Your task to perform on an android device: Show the shopping cart on newegg. Add "lg ultragear" to the cart on newegg Image 0: 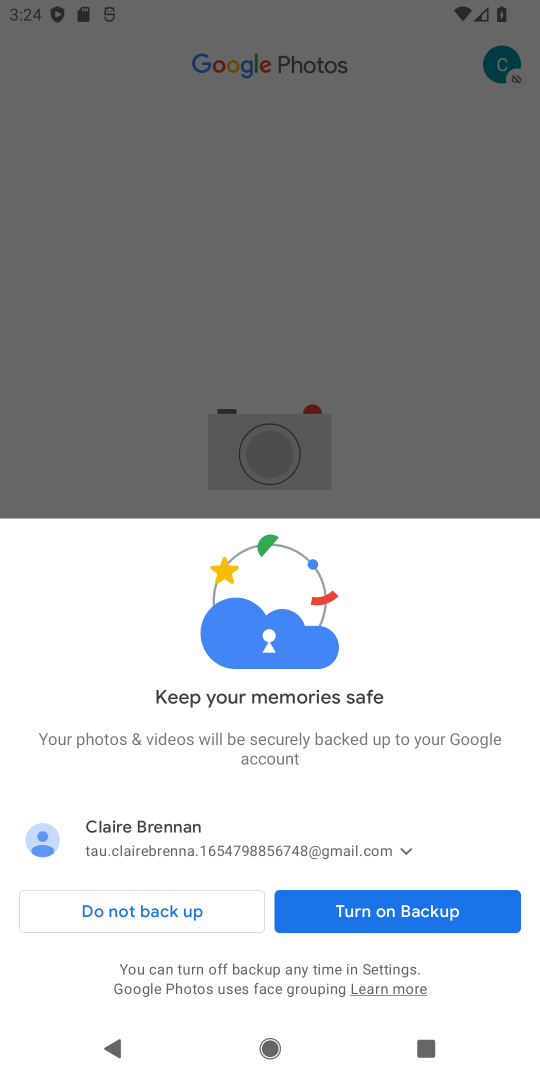
Step 0: press home button
Your task to perform on an android device: Show the shopping cart on newegg. Add "lg ultragear" to the cart on newegg Image 1: 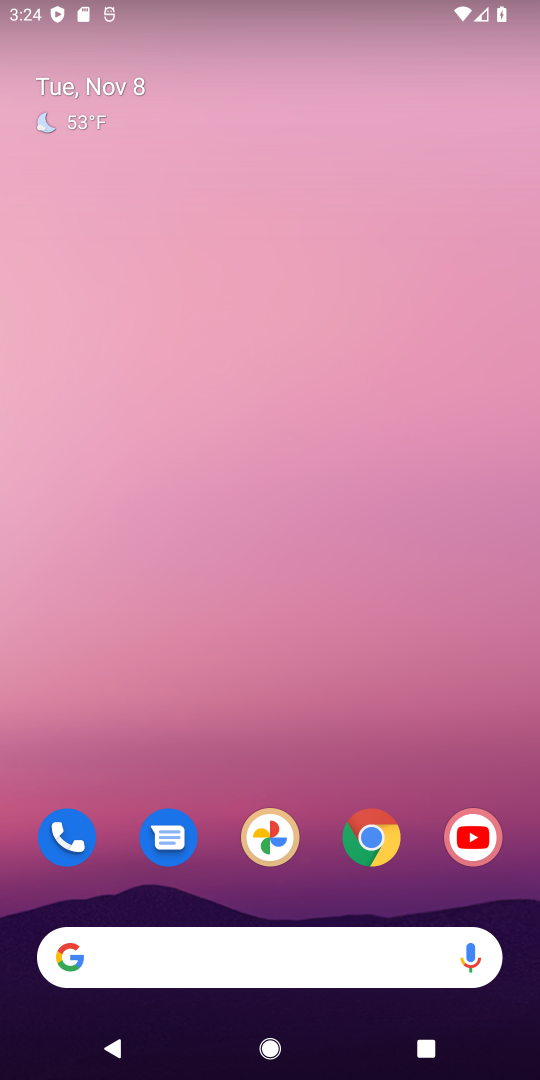
Step 1: click (373, 813)
Your task to perform on an android device: Show the shopping cart on newegg. Add "lg ultragear" to the cart on newegg Image 2: 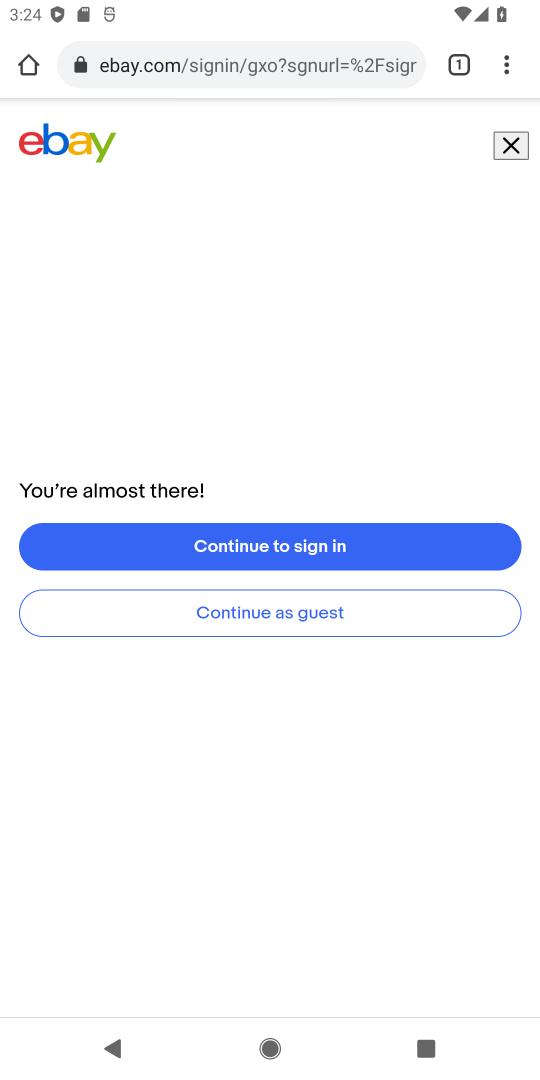
Step 2: click (257, 57)
Your task to perform on an android device: Show the shopping cart on newegg. Add "lg ultragear" to the cart on newegg Image 3: 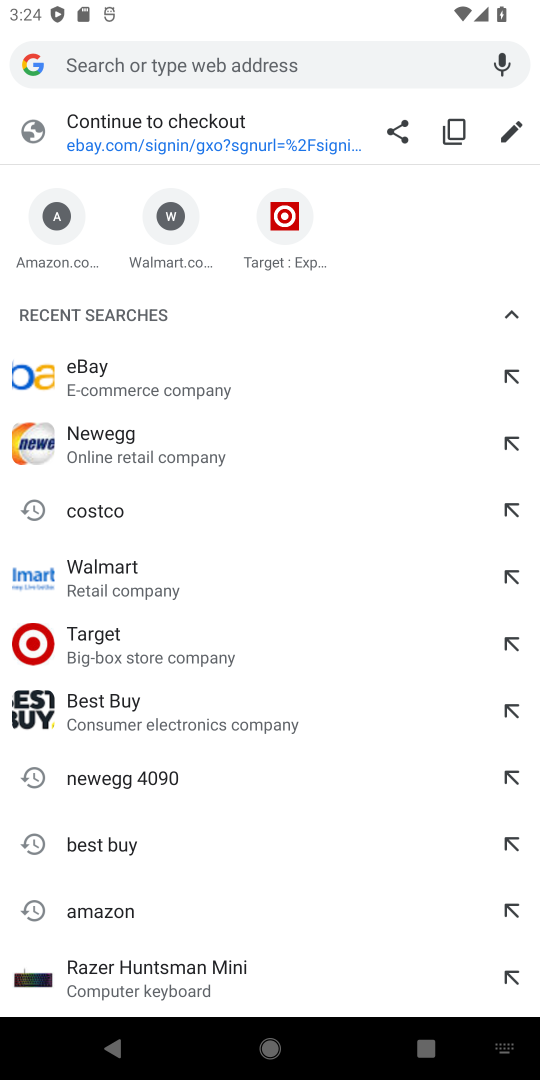
Step 3: click (108, 442)
Your task to perform on an android device: Show the shopping cart on newegg. Add "lg ultragear" to the cart on newegg Image 4: 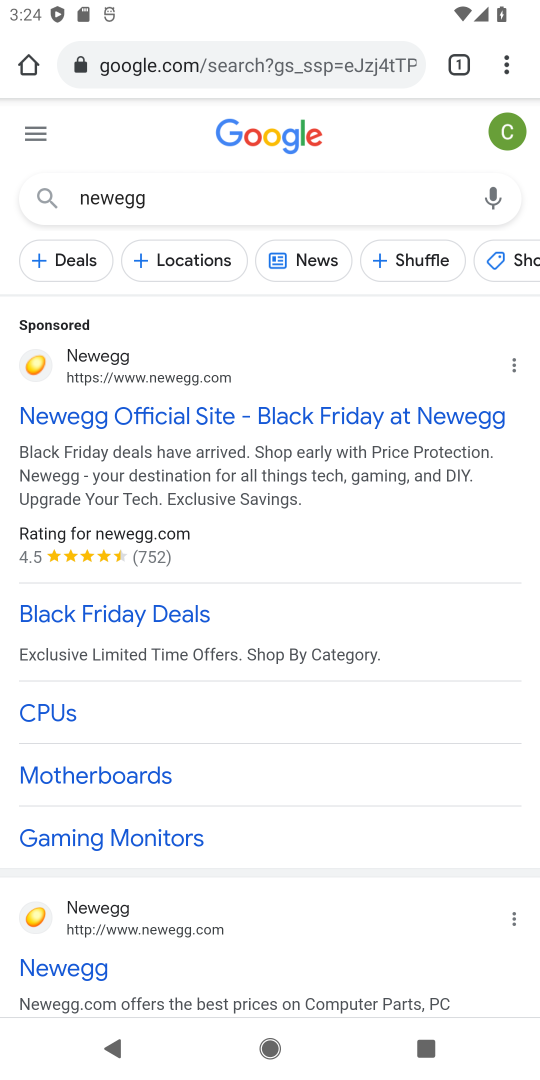
Step 4: click (51, 971)
Your task to perform on an android device: Show the shopping cart on newegg. Add "lg ultragear" to the cart on newegg Image 5: 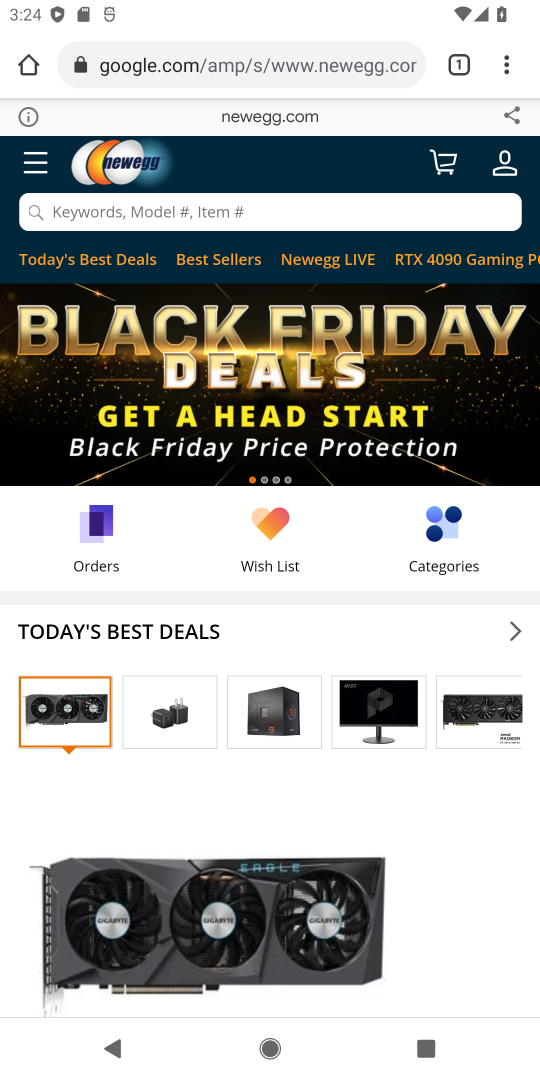
Step 5: click (193, 202)
Your task to perform on an android device: Show the shopping cart on newegg. Add "lg ultragear" to the cart on newegg Image 6: 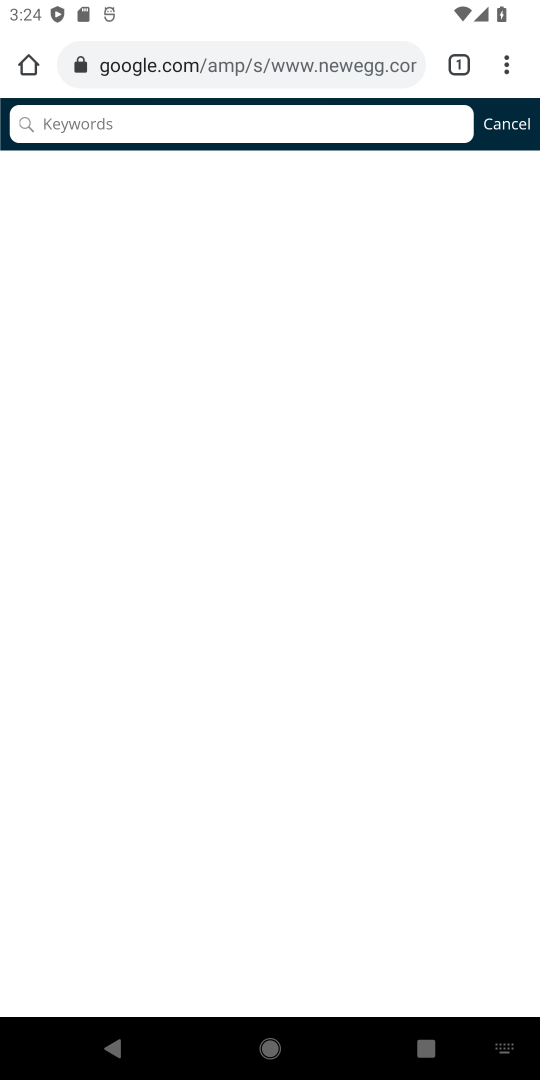
Step 6: type "lg ultragear"
Your task to perform on an android device: Show the shopping cart on newegg. Add "lg ultragear" to the cart on newegg Image 7: 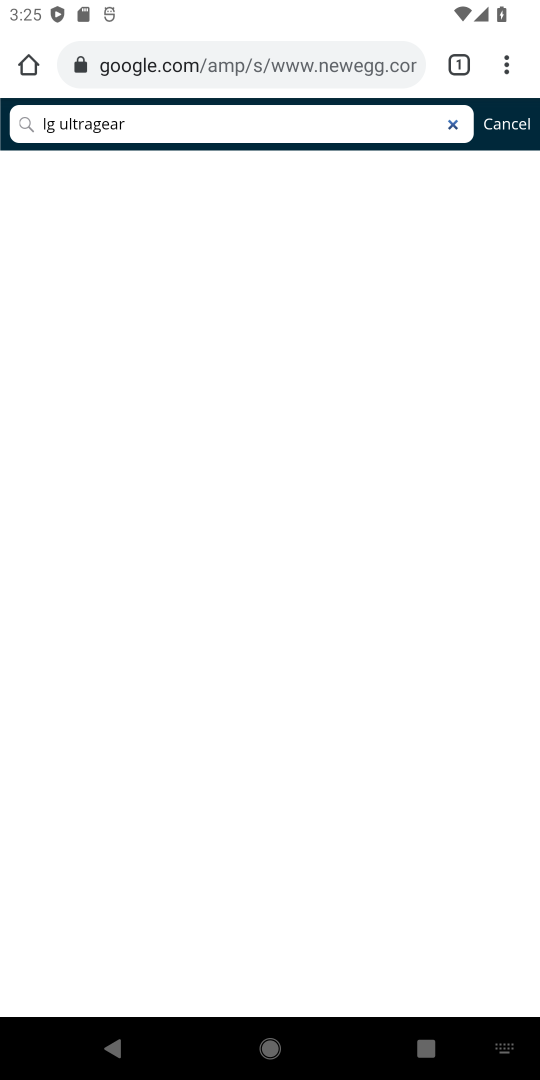
Step 7: type ""
Your task to perform on an android device: Show the shopping cart on newegg. Add "lg ultragear" to the cart on newegg Image 8: 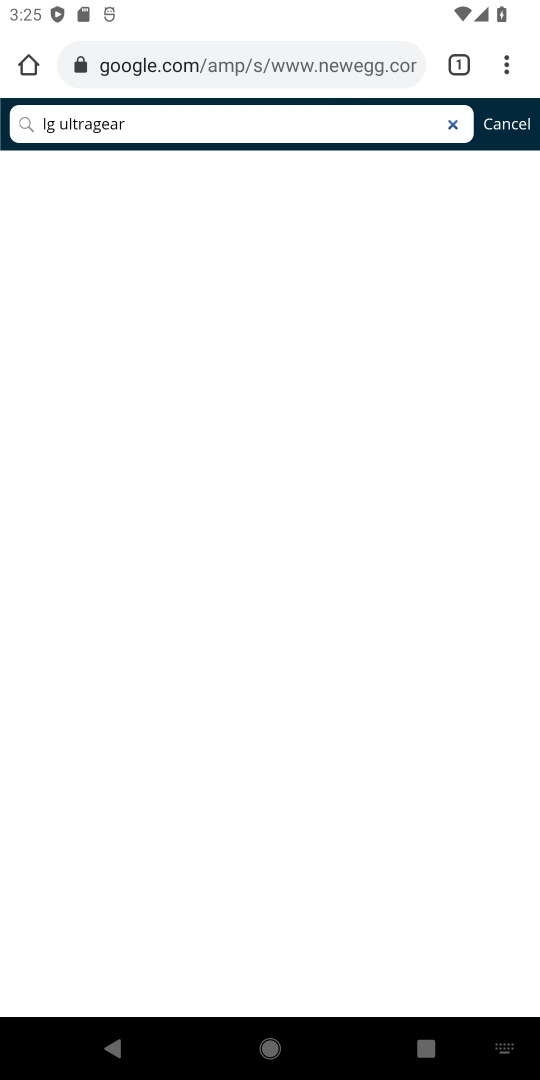
Step 8: type ""
Your task to perform on an android device: Show the shopping cart on newegg. Add "lg ultragear" to the cart on newegg Image 9: 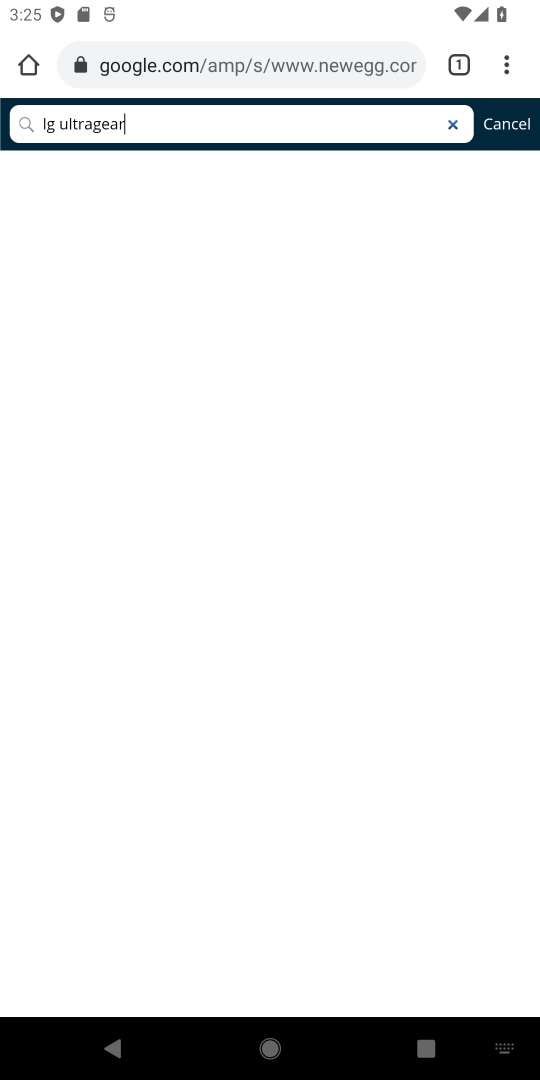
Step 9: type ""
Your task to perform on an android device: Show the shopping cart on newegg. Add "lg ultragear" to the cart on newegg Image 10: 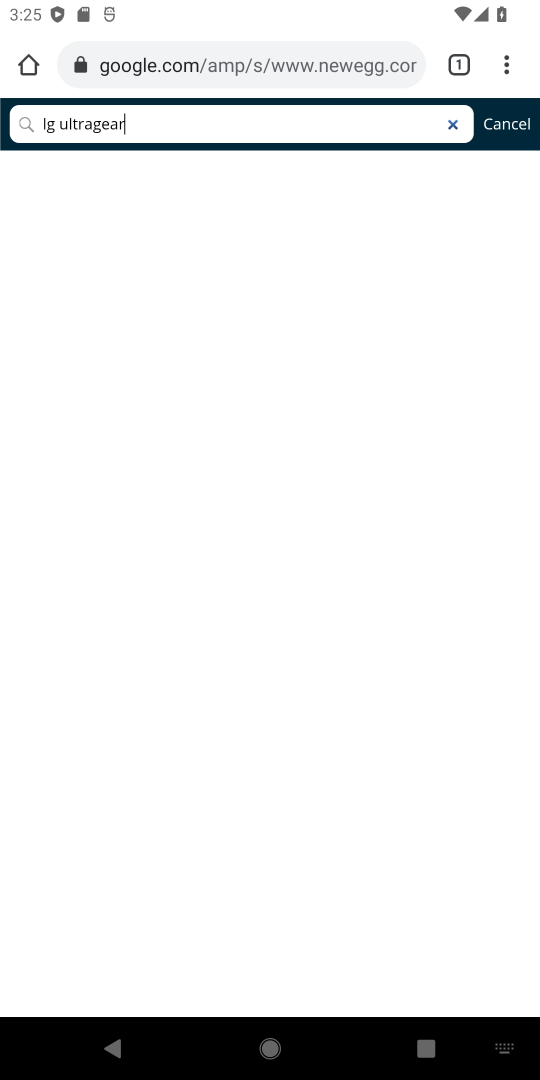
Step 10: click (37, 127)
Your task to perform on an android device: Show the shopping cart on newegg. Add "lg ultragear" to the cart on newegg Image 11: 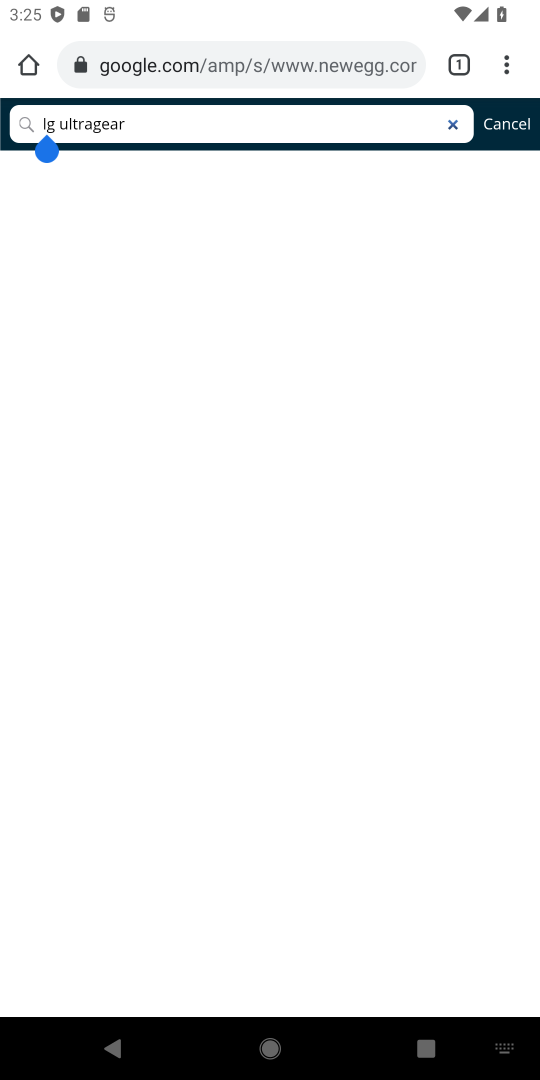
Step 11: click (25, 130)
Your task to perform on an android device: Show the shopping cart on newegg. Add "lg ultragear" to the cart on newegg Image 12: 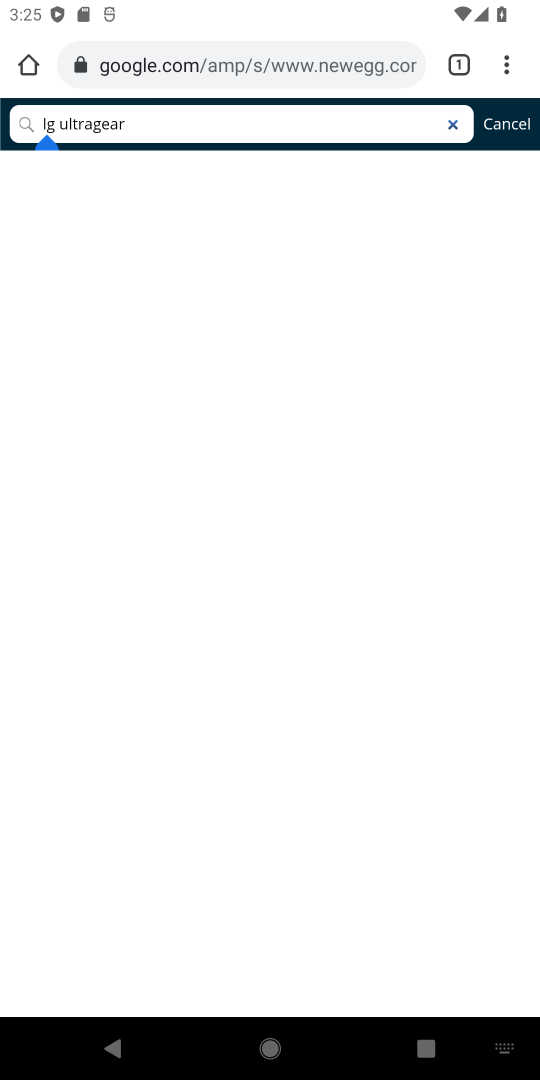
Step 12: click (163, 128)
Your task to perform on an android device: Show the shopping cart on newegg. Add "lg ultragear" to the cart on newegg Image 13: 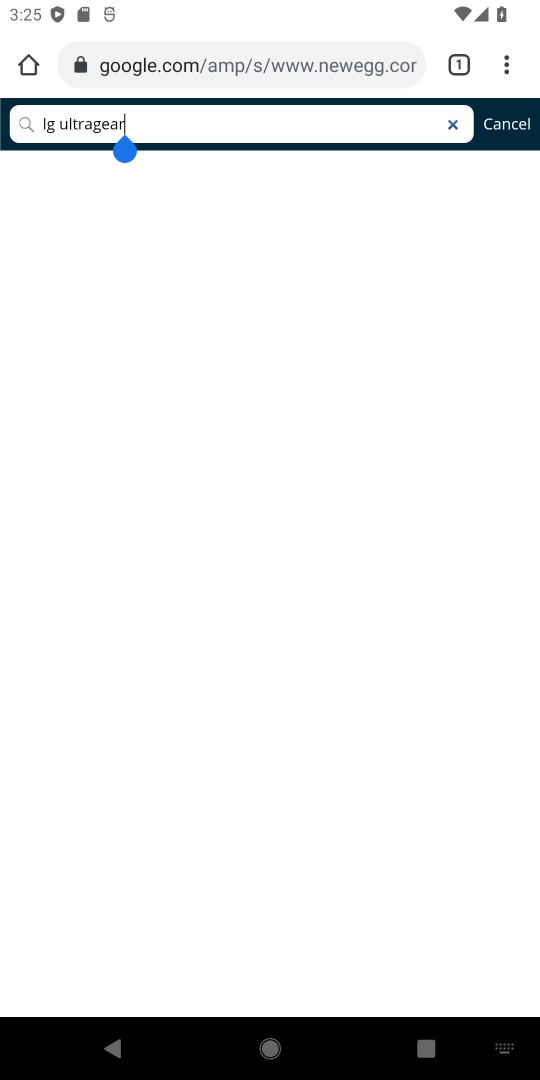
Step 13: click (23, 115)
Your task to perform on an android device: Show the shopping cart on newegg. Add "lg ultragear" to the cart on newegg Image 14: 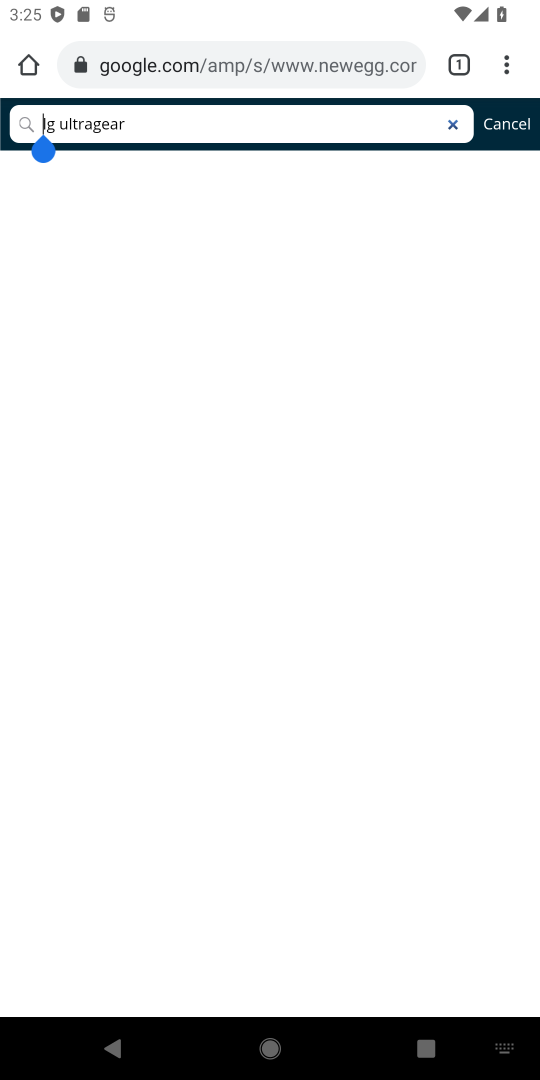
Step 14: press back button
Your task to perform on an android device: Show the shopping cart on newegg. Add "lg ultragear" to the cart on newegg Image 15: 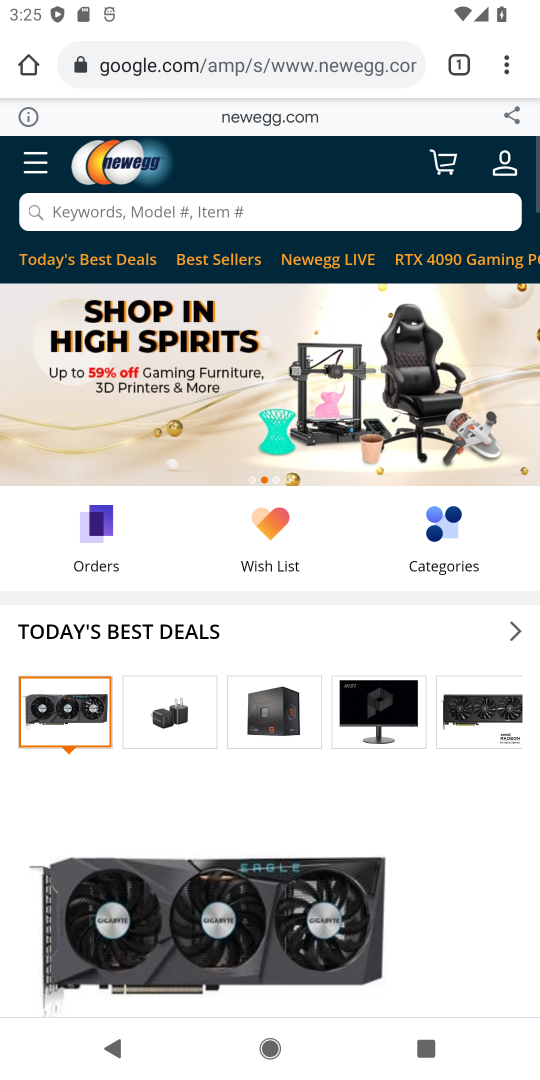
Step 15: click (211, 208)
Your task to perform on an android device: Show the shopping cart on newegg. Add "lg ultragear" to the cart on newegg Image 16: 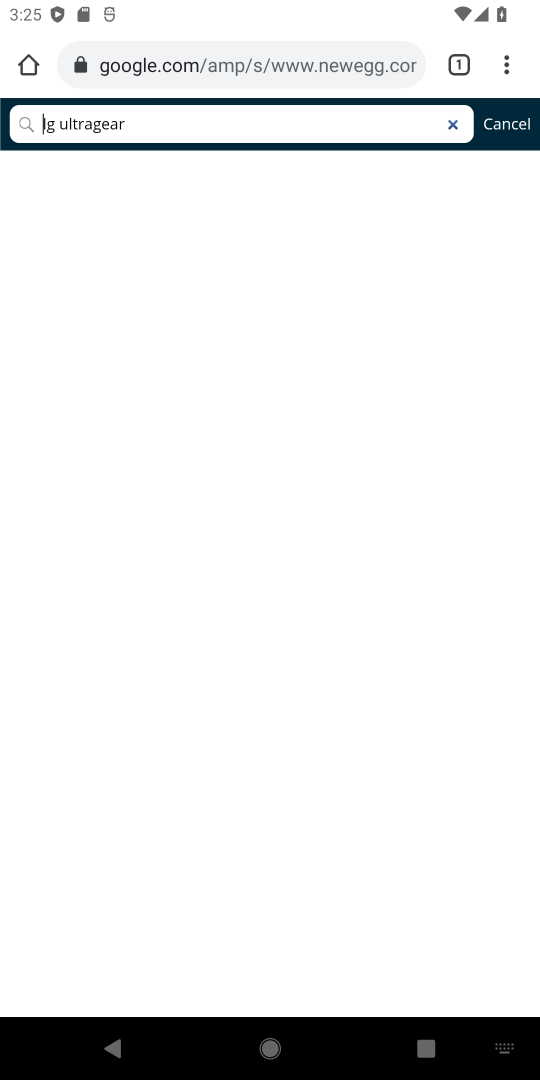
Step 16: click (454, 130)
Your task to perform on an android device: Show the shopping cart on newegg. Add "lg ultragear" to the cart on newegg Image 17: 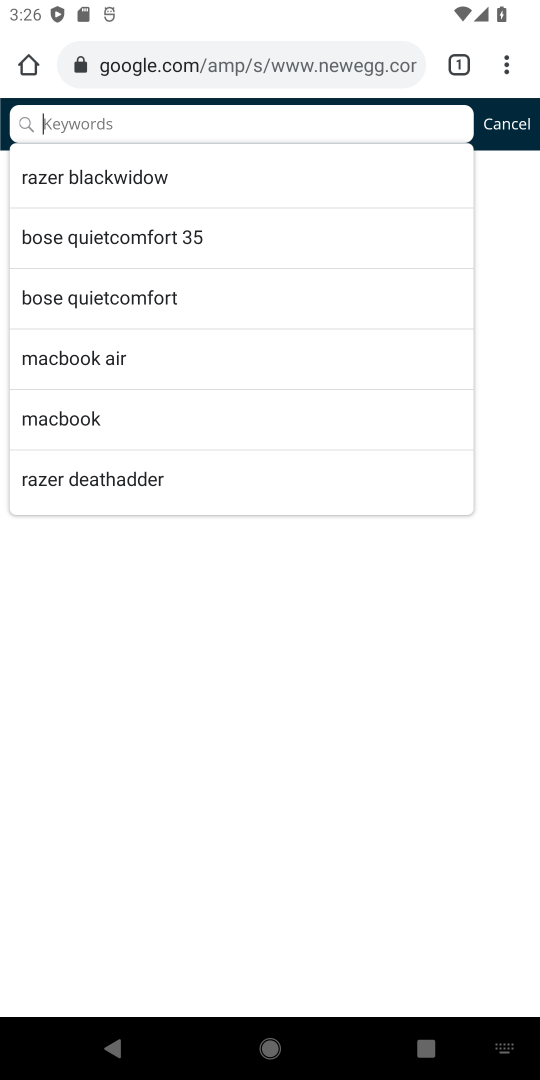
Step 17: type "lg ultragear"
Your task to perform on an android device: Show the shopping cart on newegg. Add "lg ultragear" to the cart on newegg Image 18: 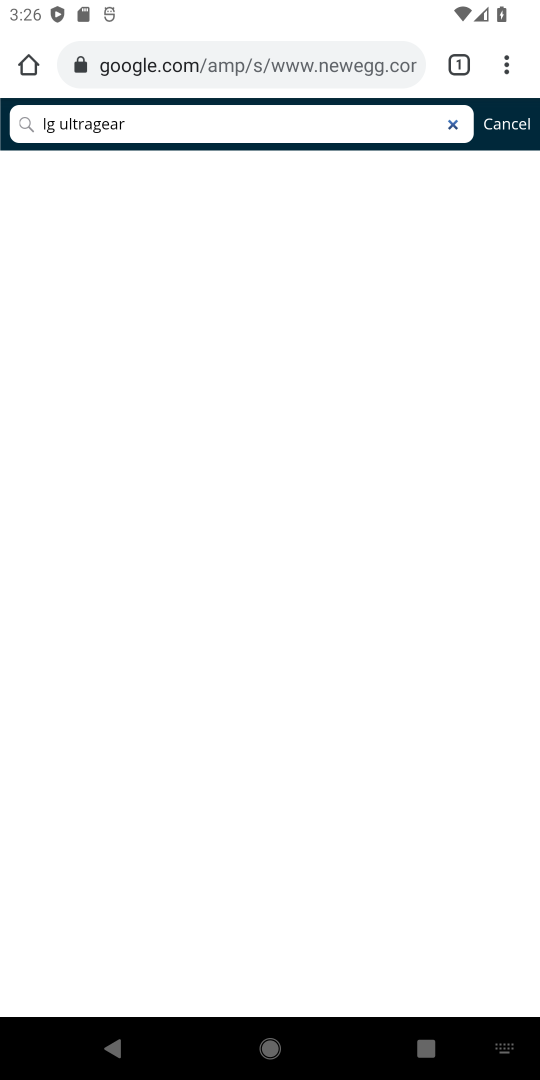
Step 18: click (19, 127)
Your task to perform on an android device: Show the shopping cart on newegg. Add "lg ultragear" to the cart on newegg Image 19: 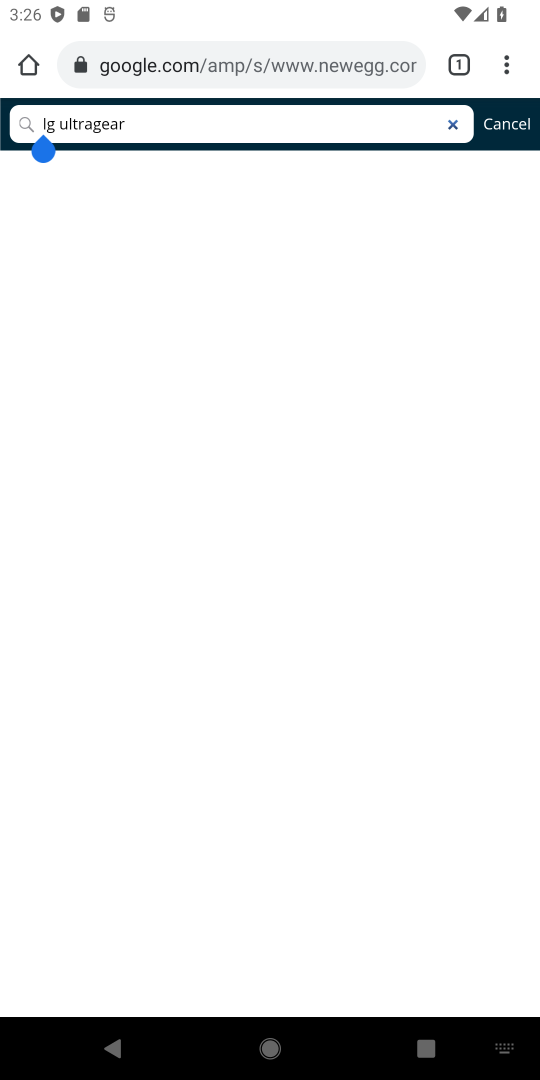
Step 19: press back button
Your task to perform on an android device: Show the shopping cart on newegg. Add "lg ultragear" to the cart on newegg Image 20: 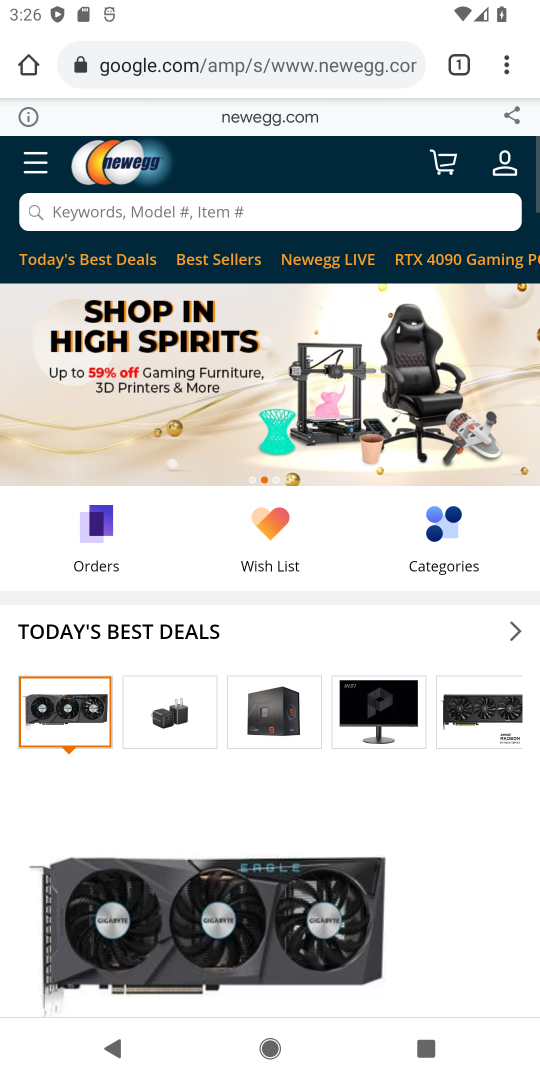
Step 20: click (200, 211)
Your task to perform on an android device: Show the shopping cart on newegg. Add "lg ultragear" to the cart on newegg Image 21: 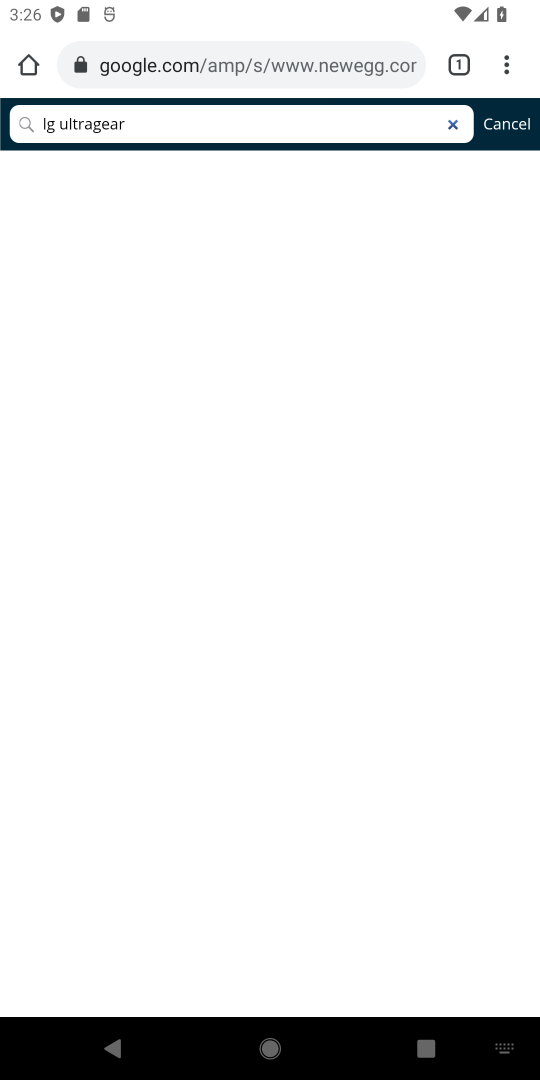
Step 21: click (23, 130)
Your task to perform on an android device: Show the shopping cart on newegg. Add "lg ultragear" to the cart on newegg Image 22: 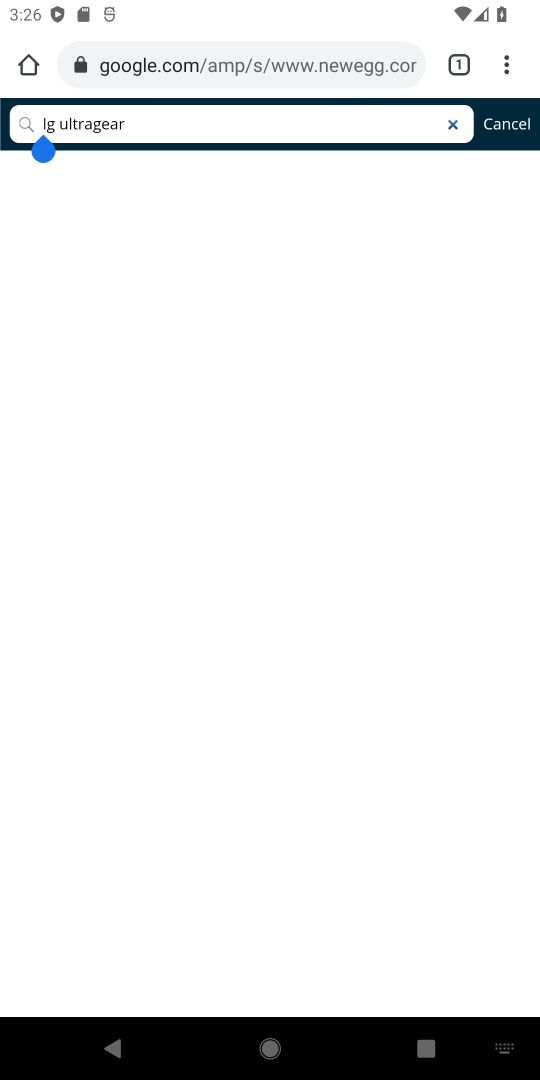
Step 22: press back button
Your task to perform on an android device: Show the shopping cart on newegg. Add "lg ultragear" to the cart on newegg Image 23: 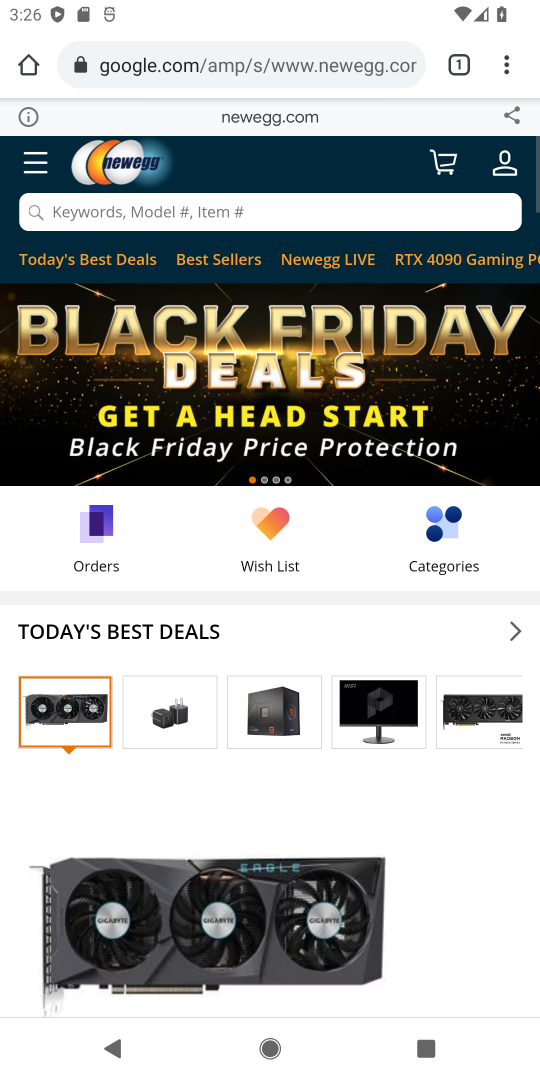
Step 23: click (452, 161)
Your task to perform on an android device: Show the shopping cart on newegg. Add "lg ultragear" to the cart on newegg Image 24: 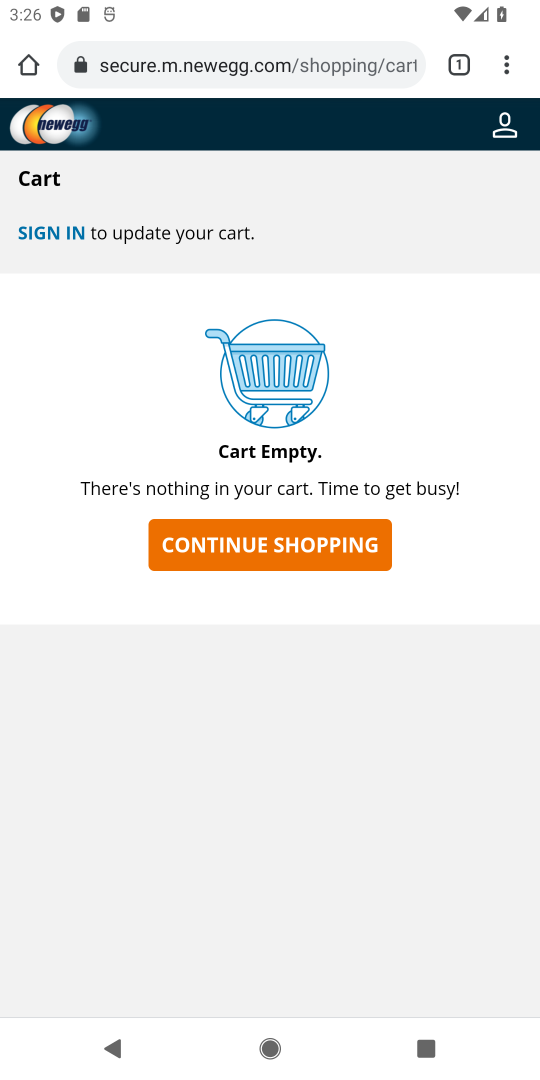
Step 24: task complete